Your task to perform on an android device: When is my next meeting? Image 0: 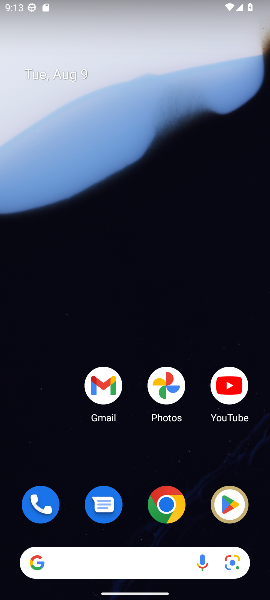
Step 0: drag from (145, 479) to (116, 88)
Your task to perform on an android device: When is my next meeting? Image 1: 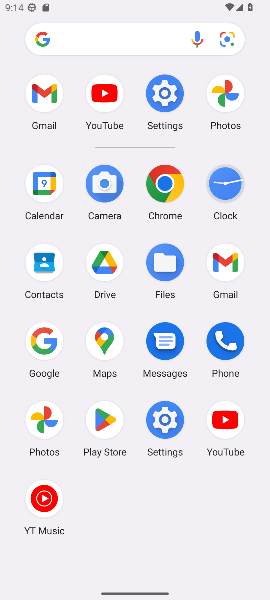
Step 1: click (112, 234)
Your task to perform on an android device: When is my next meeting? Image 2: 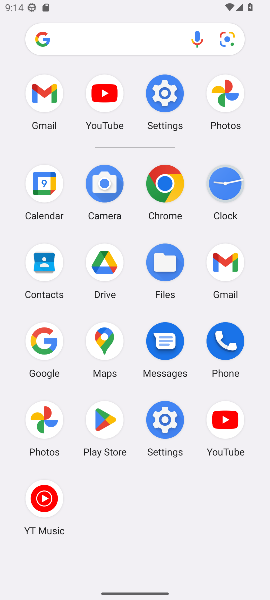
Step 2: click (41, 191)
Your task to perform on an android device: When is my next meeting? Image 3: 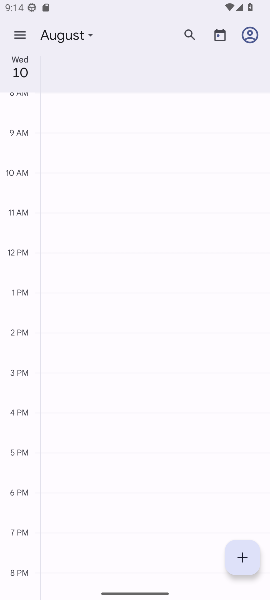
Step 3: click (84, 26)
Your task to perform on an android device: When is my next meeting? Image 4: 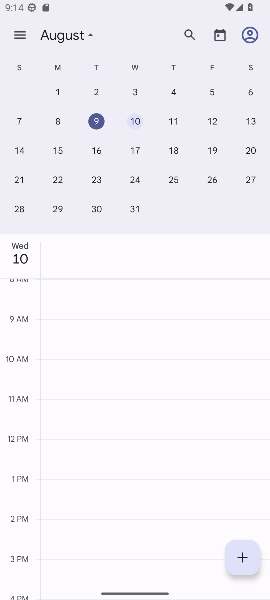
Step 4: click (90, 120)
Your task to perform on an android device: When is my next meeting? Image 5: 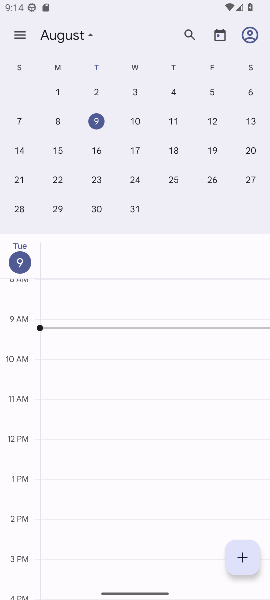
Step 5: task complete